Your task to perform on an android device: set the stopwatch Image 0: 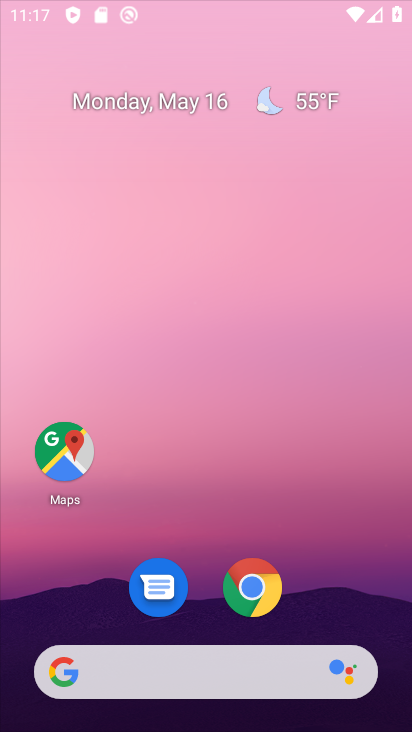
Step 0: click (192, 172)
Your task to perform on an android device: set the stopwatch Image 1: 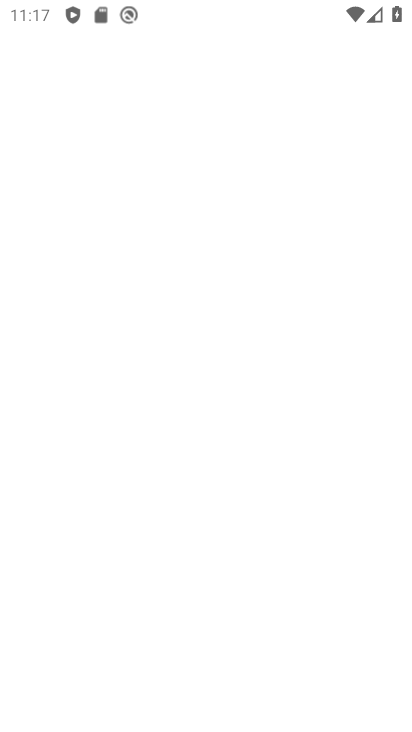
Step 1: drag from (190, 632) to (226, 127)
Your task to perform on an android device: set the stopwatch Image 2: 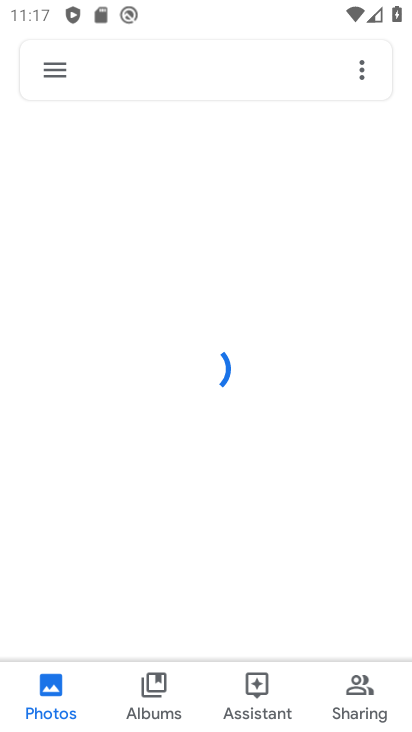
Step 2: press home button
Your task to perform on an android device: set the stopwatch Image 3: 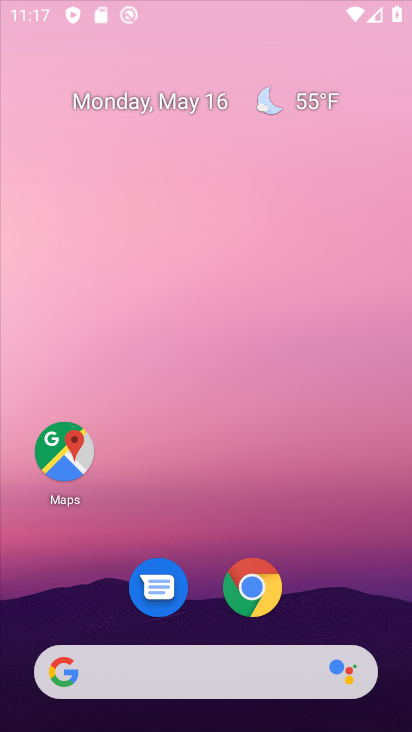
Step 3: drag from (252, 568) to (308, 99)
Your task to perform on an android device: set the stopwatch Image 4: 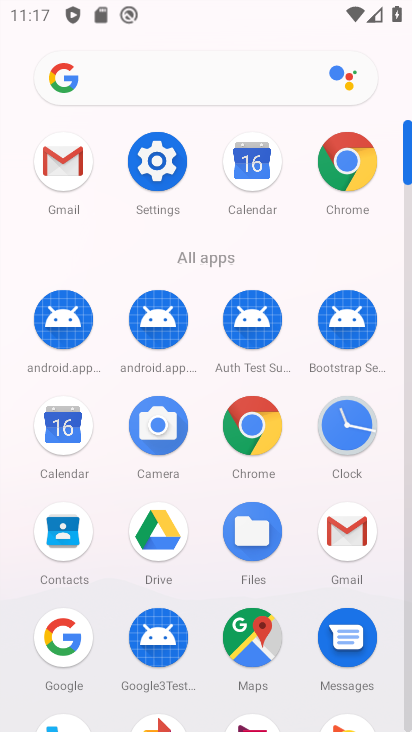
Step 4: click (332, 428)
Your task to perform on an android device: set the stopwatch Image 5: 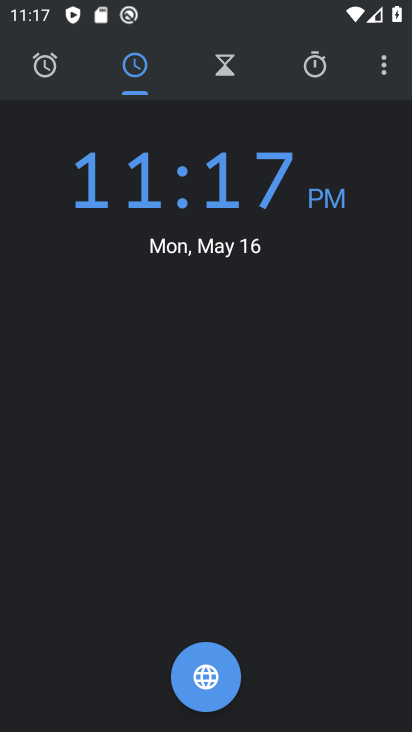
Step 5: click (378, 71)
Your task to perform on an android device: set the stopwatch Image 6: 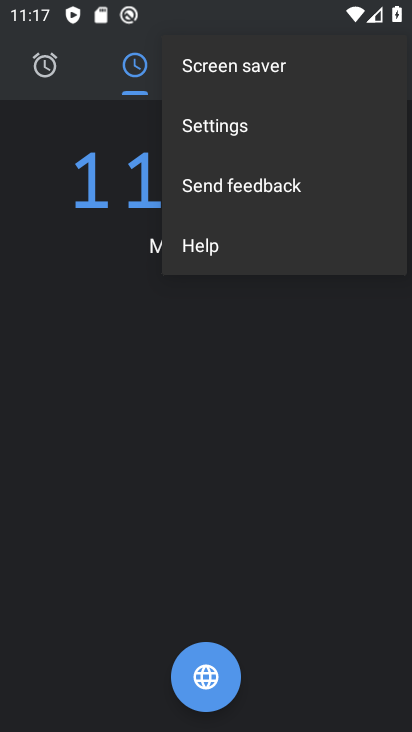
Step 6: click (118, 82)
Your task to perform on an android device: set the stopwatch Image 7: 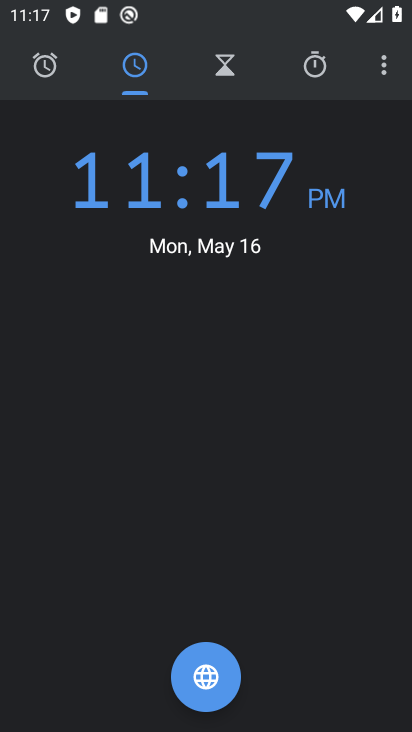
Step 7: click (322, 53)
Your task to perform on an android device: set the stopwatch Image 8: 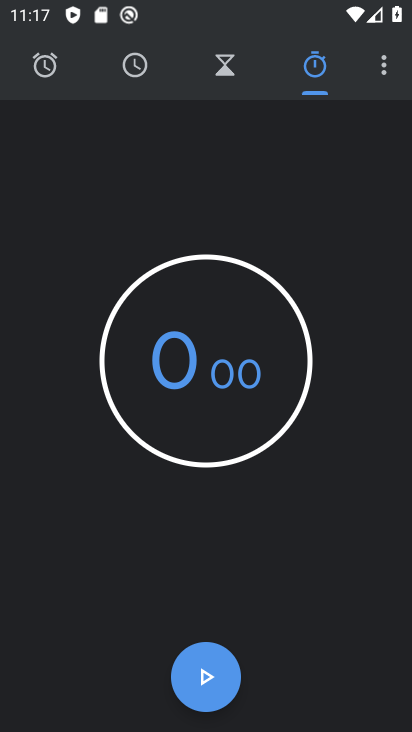
Step 8: click (211, 676)
Your task to perform on an android device: set the stopwatch Image 9: 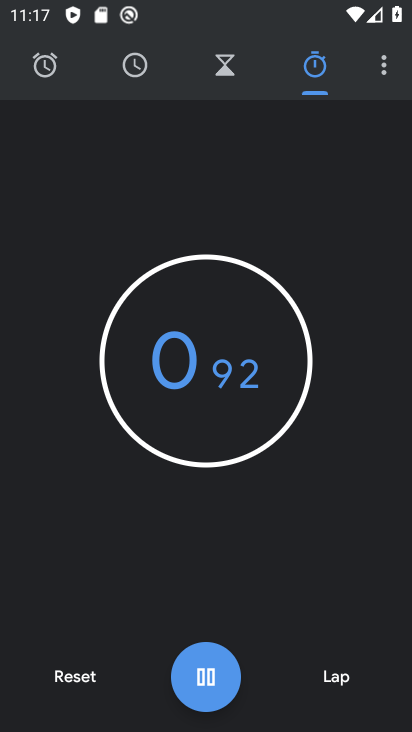
Step 9: task complete